Your task to perform on an android device: Go to Yahoo.com Image 0: 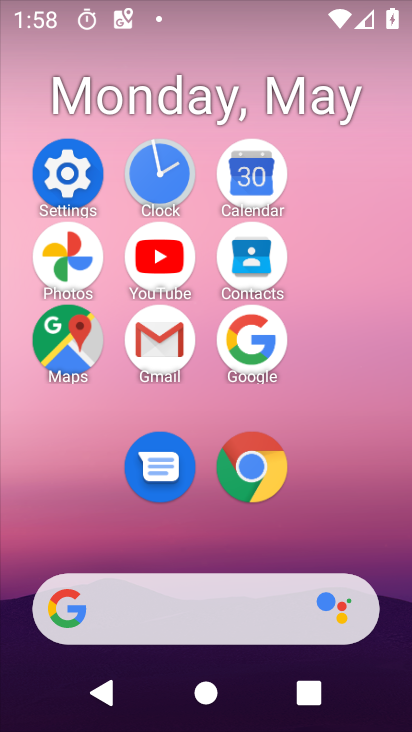
Step 0: click (255, 453)
Your task to perform on an android device: Go to Yahoo.com Image 1: 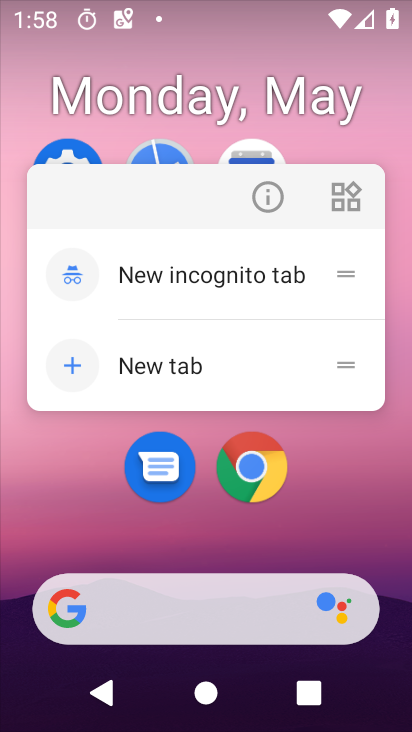
Step 1: click (278, 479)
Your task to perform on an android device: Go to Yahoo.com Image 2: 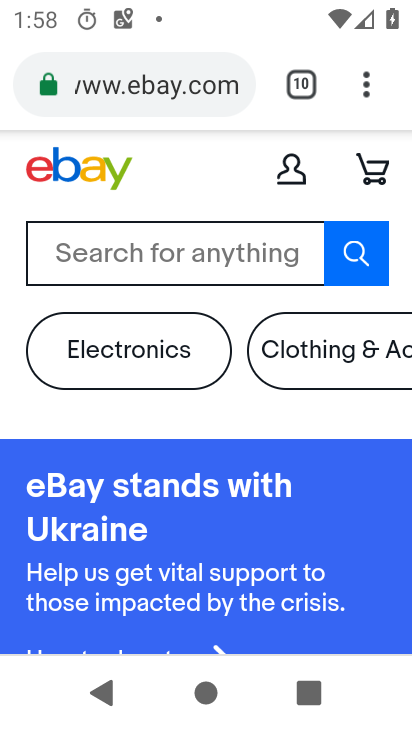
Step 2: click (301, 63)
Your task to perform on an android device: Go to Yahoo.com Image 3: 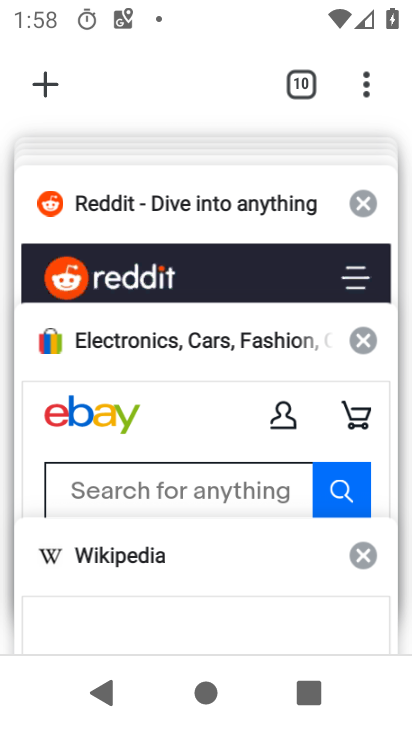
Step 3: drag from (251, 205) to (280, 484)
Your task to perform on an android device: Go to Yahoo.com Image 4: 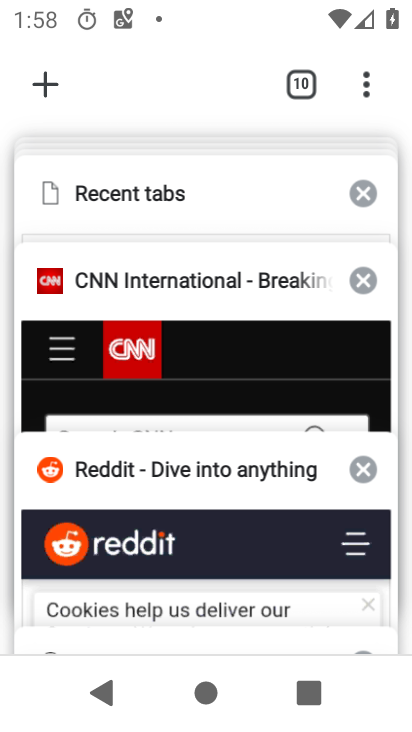
Step 4: drag from (192, 211) to (217, 542)
Your task to perform on an android device: Go to Yahoo.com Image 5: 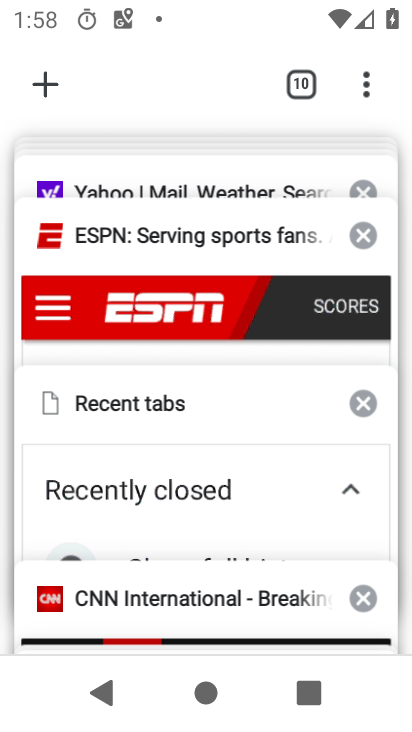
Step 5: drag from (228, 192) to (228, 523)
Your task to perform on an android device: Go to Yahoo.com Image 6: 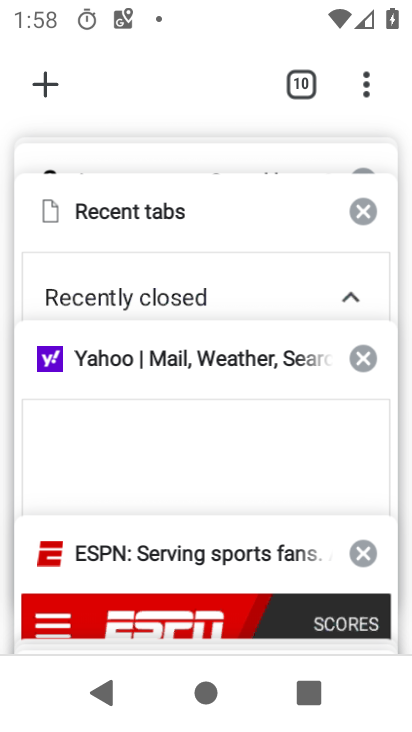
Step 6: click (166, 413)
Your task to perform on an android device: Go to Yahoo.com Image 7: 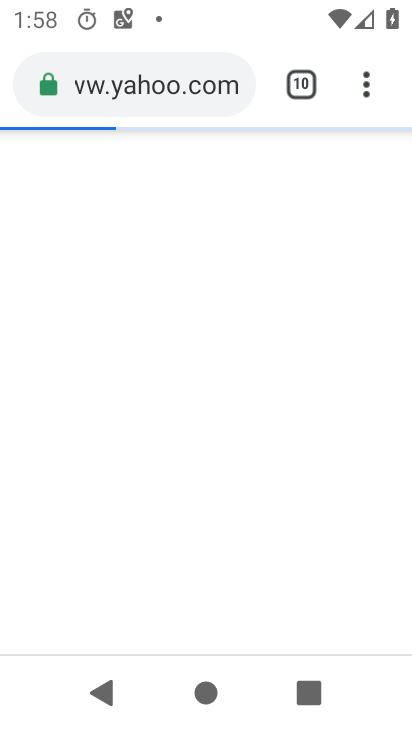
Step 7: task complete